Your task to perform on an android device: Do I have any events this weekend? Image 0: 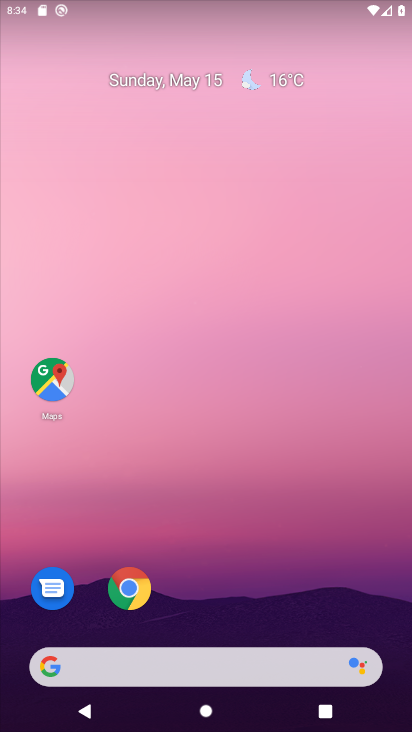
Step 0: drag from (289, 516) to (241, 133)
Your task to perform on an android device: Do I have any events this weekend? Image 1: 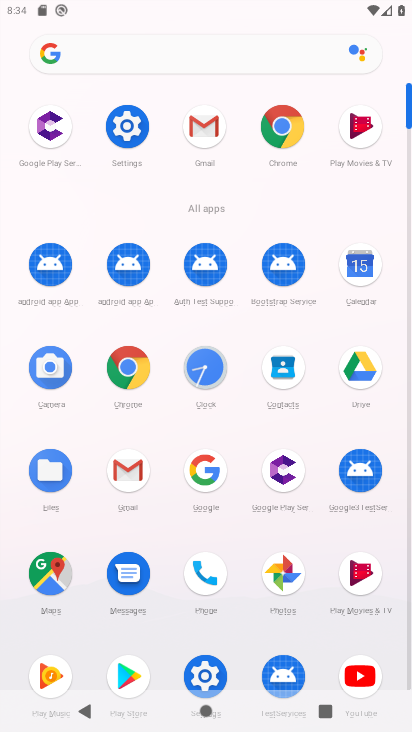
Step 1: click (369, 269)
Your task to perform on an android device: Do I have any events this weekend? Image 2: 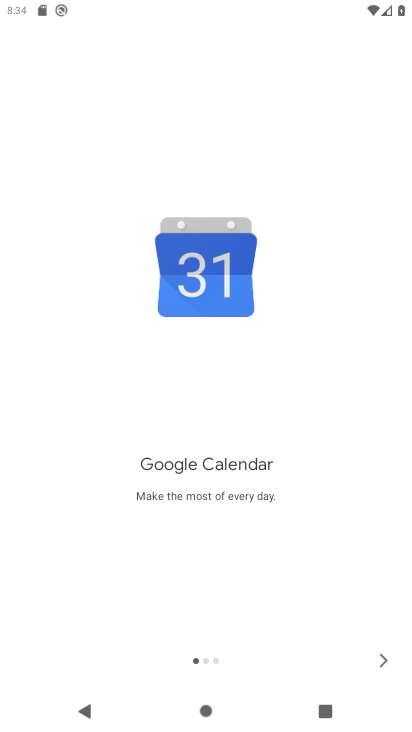
Step 2: click (380, 665)
Your task to perform on an android device: Do I have any events this weekend? Image 3: 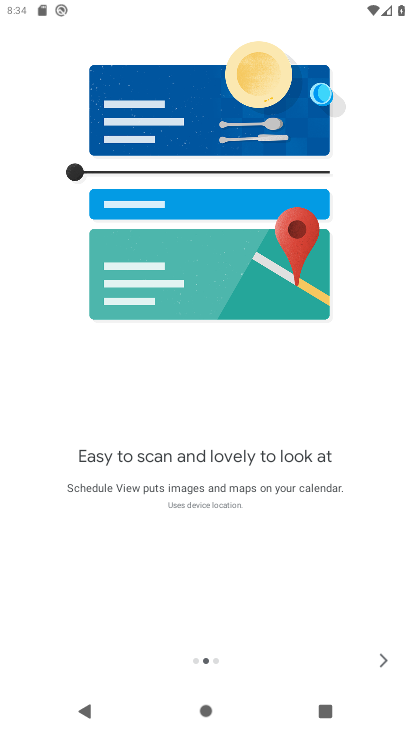
Step 3: click (378, 665)
Your task to perform on an android device: Do I have any events this weekend? Image 4: 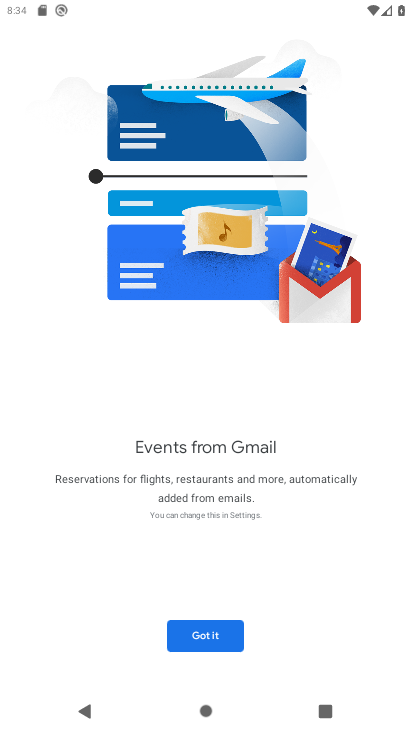
Step 4: click (204, 634)
Your task to perform on an android device: Do I have any events this weekend? Image 5: 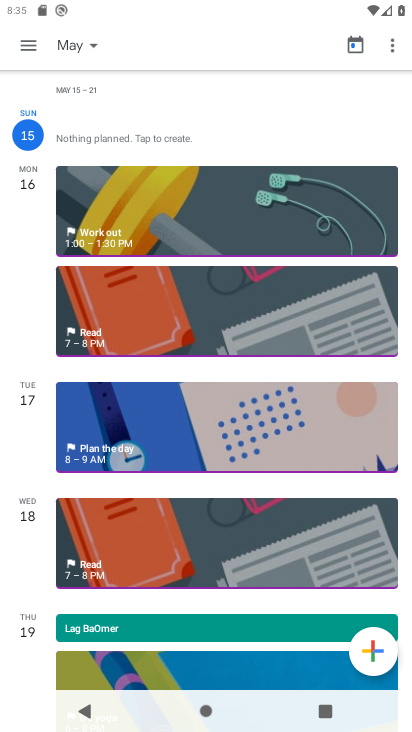
Step 5: click (90, 37)
Your task to perform on an android device: Do I have any events this weekend? Image 6: 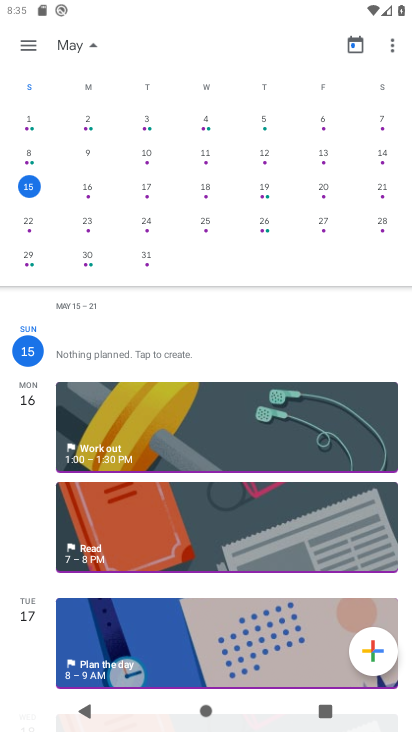
Step 6: click (85, 188)
Your task to perform on an android device: Do I have any events this weekend? Image 7: 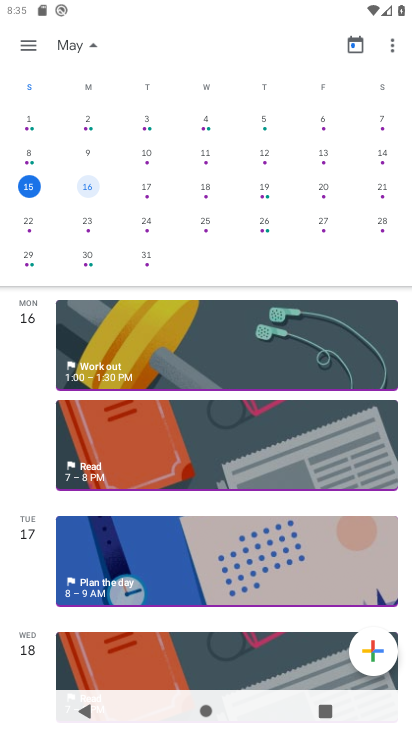
Step 7: click (143, 188)
Your task to perform on an android device: Do I have any events this weekend? Image 8: 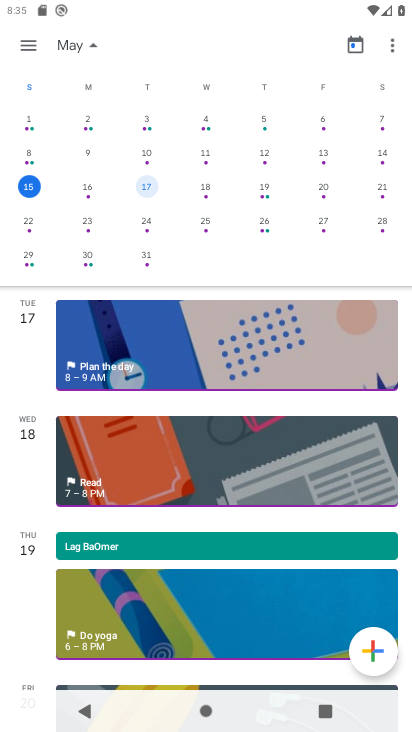
Step 8: click (215, 197)
Your task to perform on an android device: Do I have any events this weekend? Image 9: 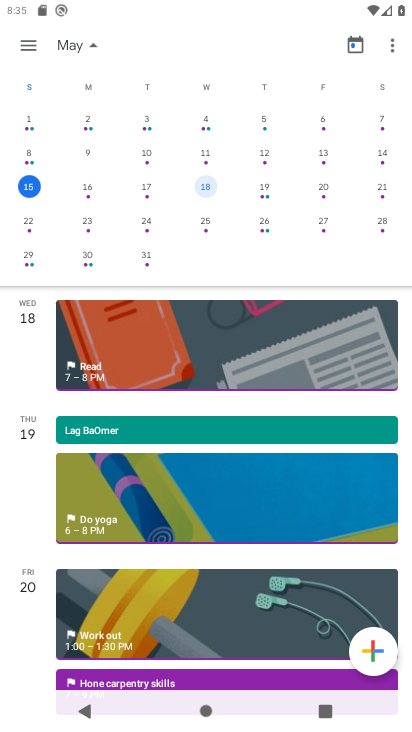
Step 9: click (270, 199)
Your task to perform on an android device: Do I have any events this weekend? Image 10: 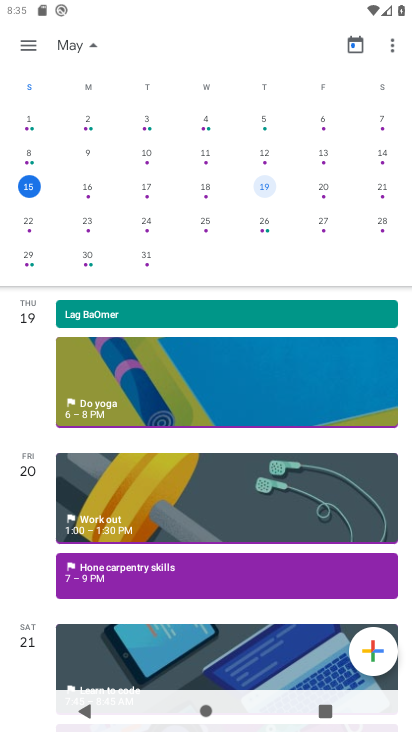
Step 10: click (306, 198)
Your task to perform on an android device: Do I have any events this weekend? Image 11: 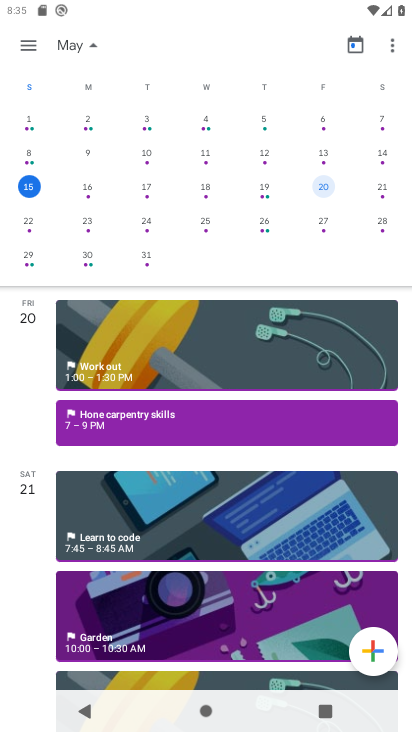
Step 11: click (379, 200)
Your task to perform on an android device: Do I have any events this weekend? Image 12: 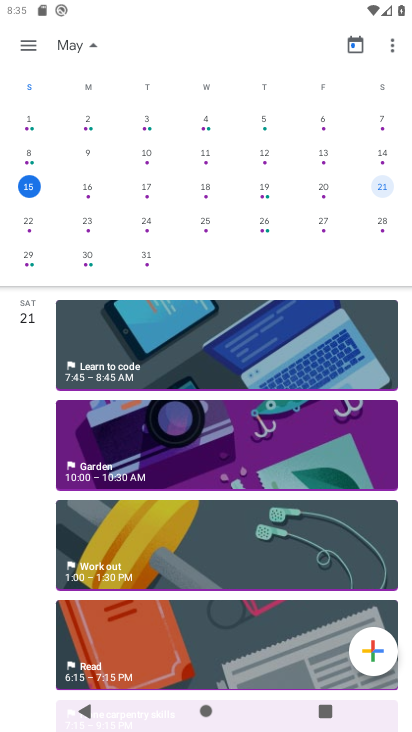
Step 12: task complete